Your task to perform on an android device: Go to Android settings Image 0: 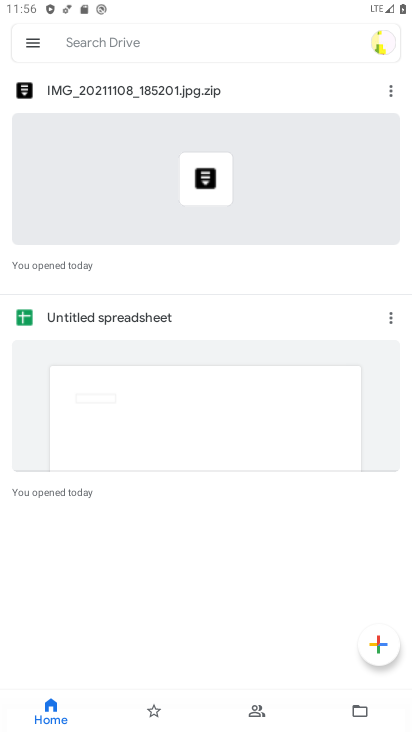
Step 0: press home button
Your task to perform on an android device: Go to Android settings Image 1: 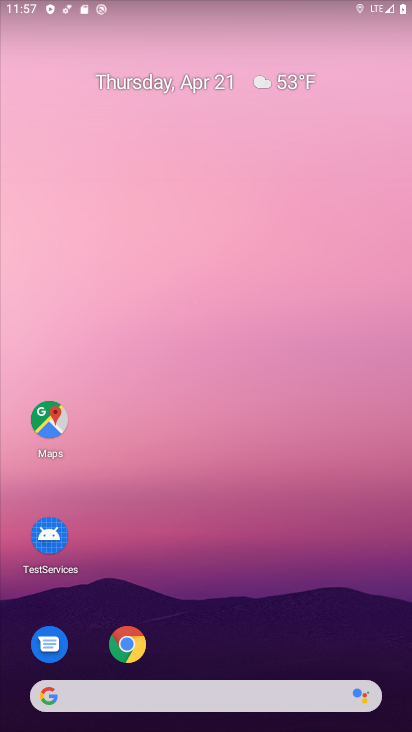
Step 1: drag from (288, 508) to (241, 112)
Your task to perform on an android device: Go to Android settings Image 2: 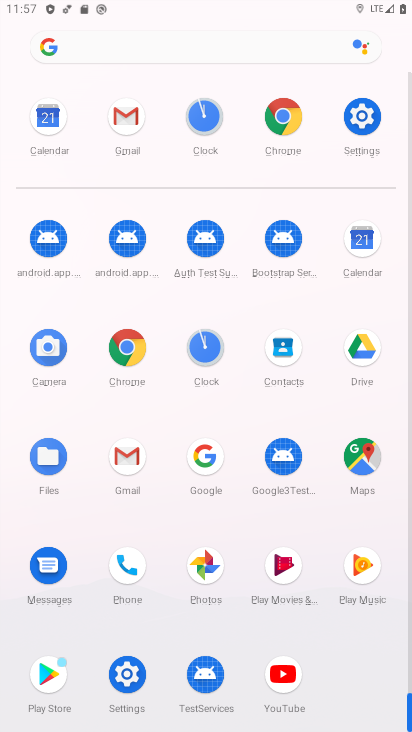
Step 2: click (123, 681)
Your task to perform on an android device: Go to Android settings Image 3: 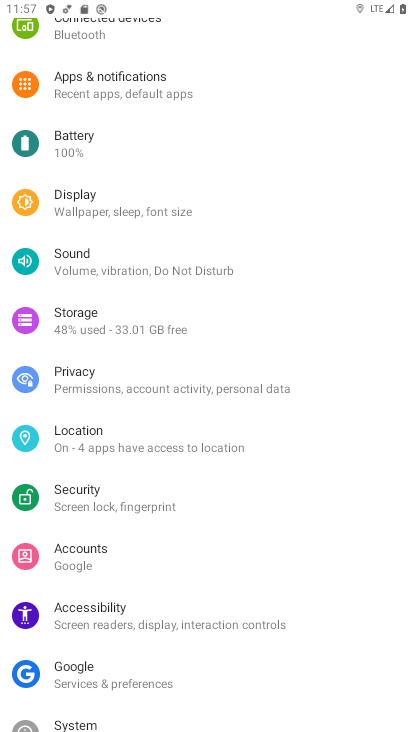
Step 3: task complete